Your task to perform on an android device: Play the last video I watched on Youtube Image 0: 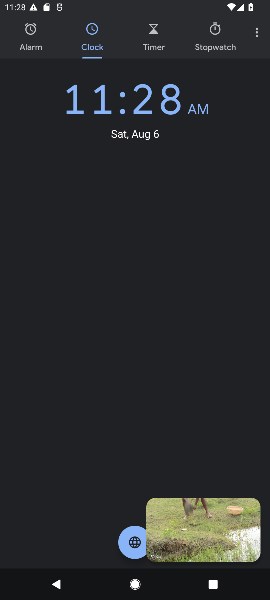
Step 0: click (208, 529)
Your task to perform on an android device: Play the last video I watched on Youtube Image 1: 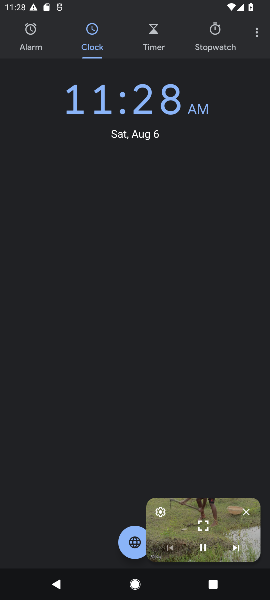
Step 1: click (240, 511)
Your task to perform on an android device: Play the last video I watched on Youtube Image 2: 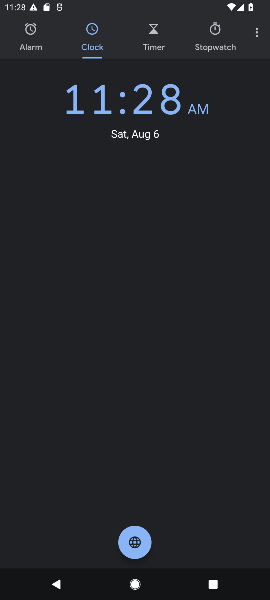
Step 2: press home button
Your task to perform on an android device: Play the last video I watched on Youtube Image 3: 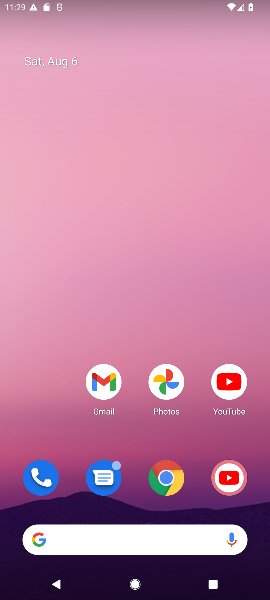
Step 3: click (223, 481)
Your task to perform on an android device: Play the last video I watched on Youtube Image 4: 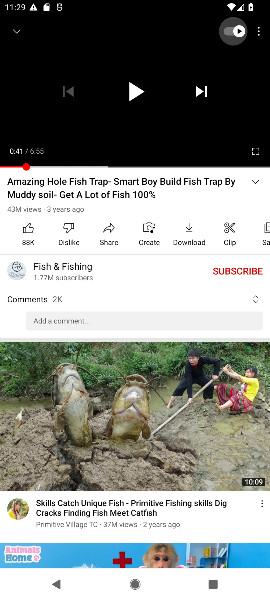
Step 4: click (134, 101)
Your task to perform on an android device: Play the last video I watched on Youtube Image 5: 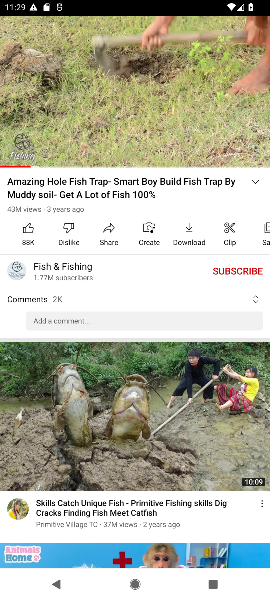
Step 5: task complete